Your task to perform on an android device: turn on wifi Image 0: 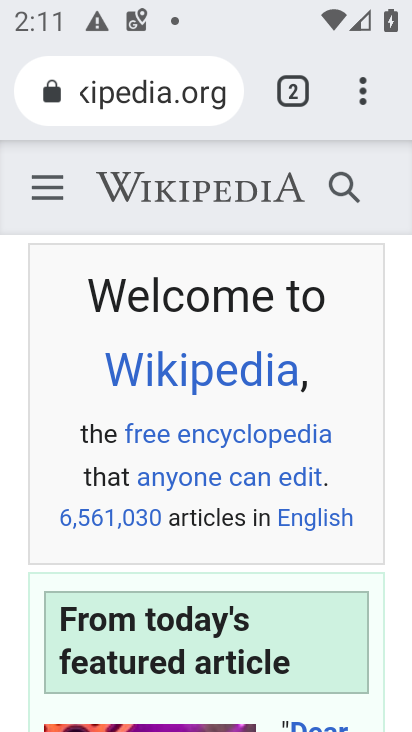
Step 0: press home button
Your task to perform on an android device: turn on wifi Image 1: 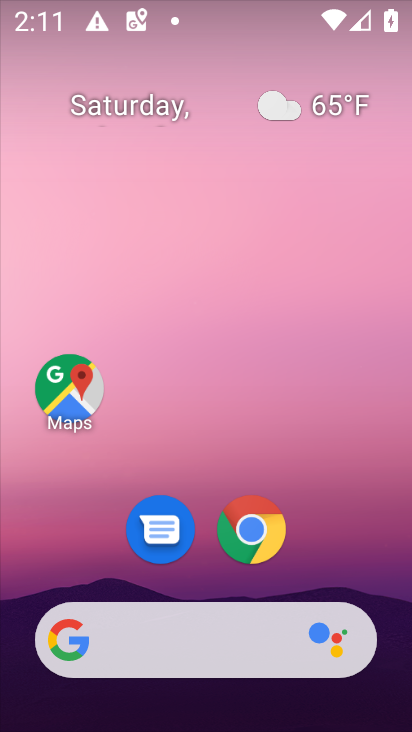
Step 1: drag from (364, 568) to (298, 187)
Your task to perform on an android device: turn on wifi Image 2: 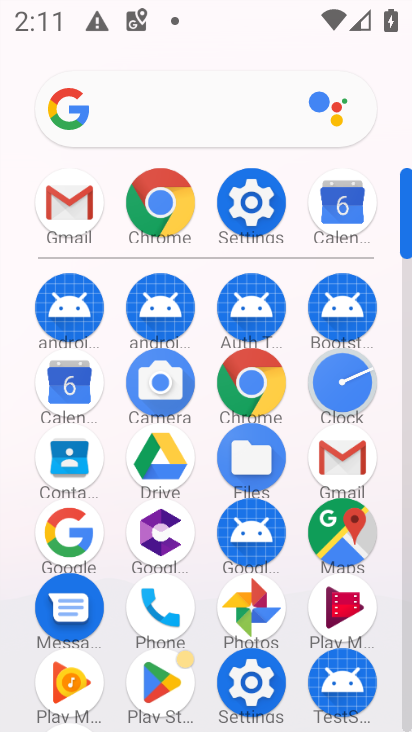
Step 2: click (253, 210)
Your task to perform on an android device: turn on wifi Image 3: 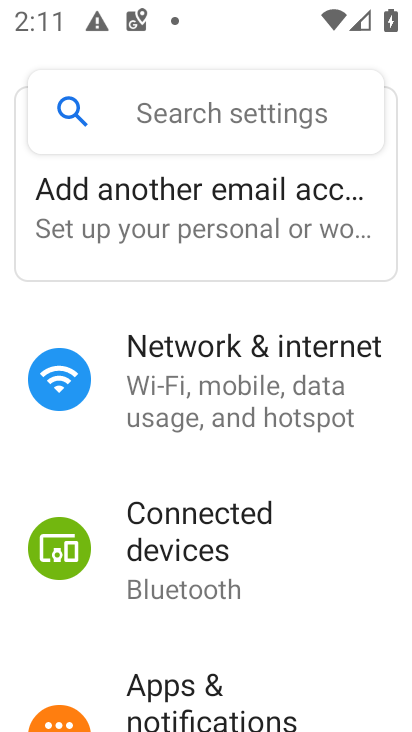
Step 3: click (271, 411)
Your task to perform on an android device: turn on wifi Image 4: 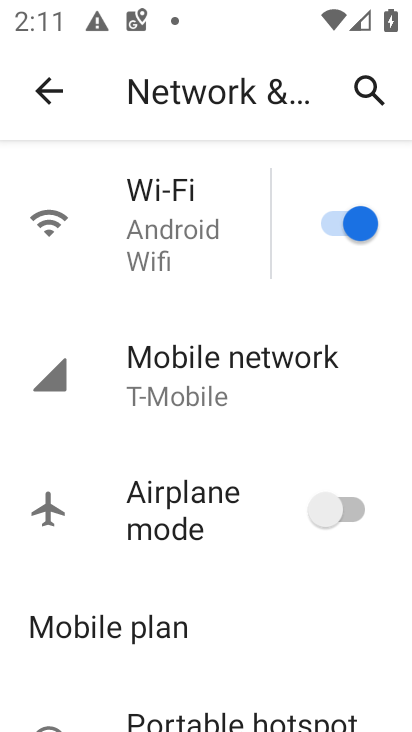
Step 4: task complete